Your task to perform on an android device: Open CNN.com Image 0: 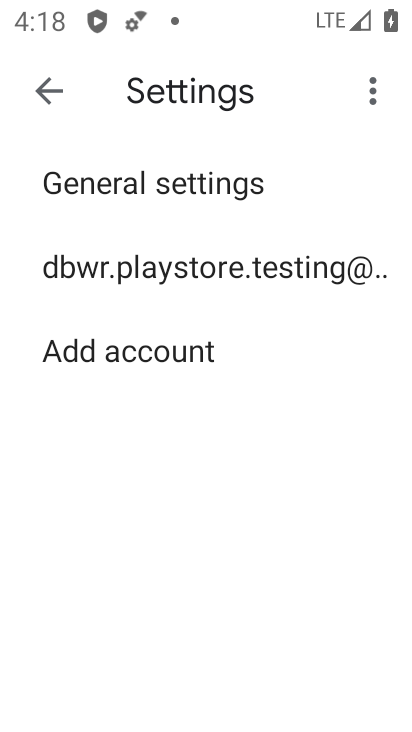
Step 0: press home button
Your task to perform on an android device: Open CNN.com Image 1: 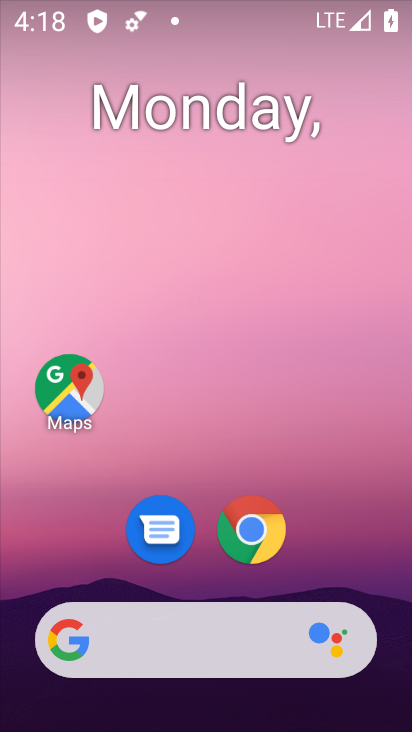
Step 1: click (244, 533)
Your task to perform on an android device: Open CNN.com Image 2: 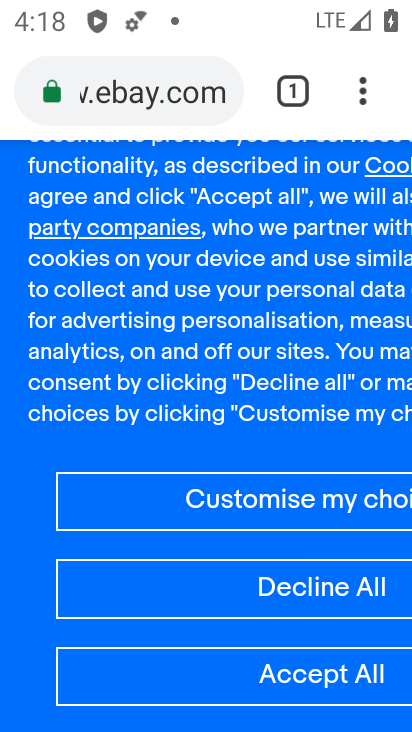
Step 2: click (143, 94)
Your task to perform on an android device: Open CNN.com Image 3: 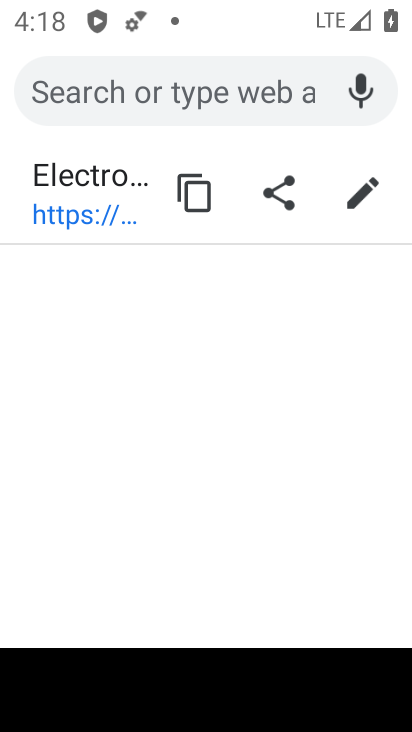
Step 3: type "CNN.com"
Your task to perform on an android device: Open CNN.com Image 4: 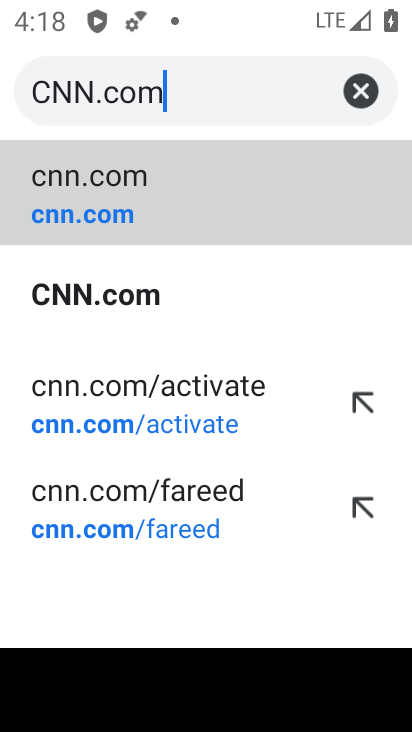
Step 4: click (56, 210)
Your task to perform on an android device: Open CNN.com Image 5: 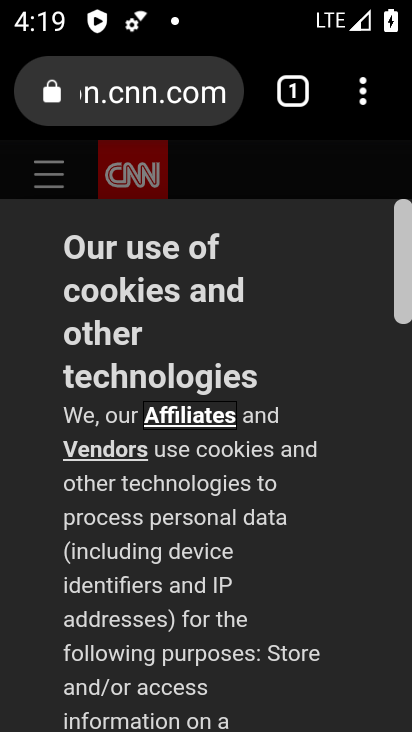
Step 5: task complete